Your task to perform on an android device: turn off notifications settings in the gmail app Image 0: 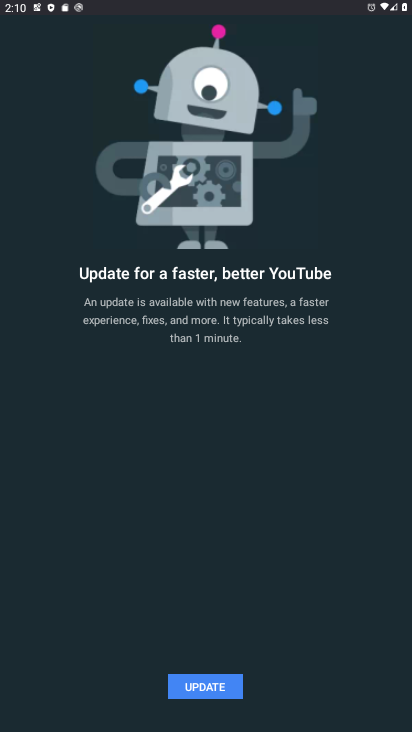
Step 0: press home button
Your task to perform on an android device: turn off notifications settings in the gmail app Image 1: 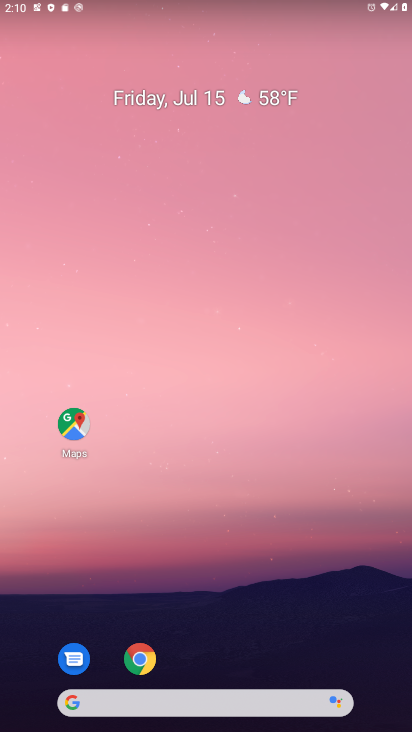
Step 1: drag from (219, 727) to (223, 229)
Your task to perform on an android device: turn off notifications settings in the gmail app Image 2: 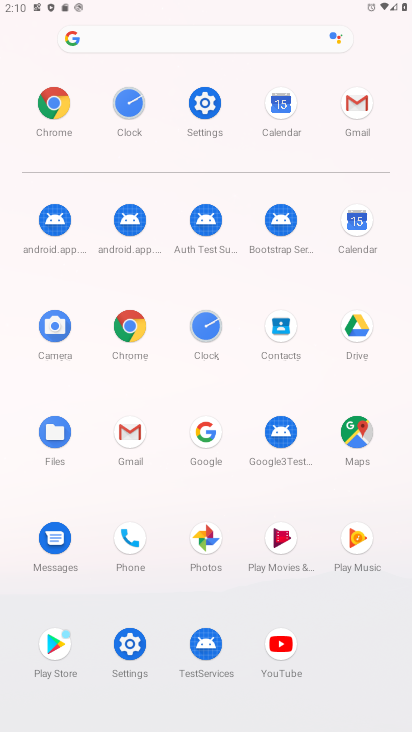
Step 2: click (121, 433)
Your task to perform on an android device: turn off notifications settings in the gmail app Image 3: 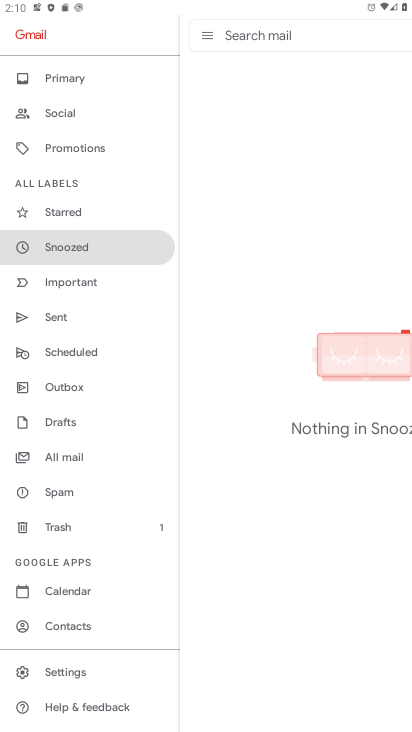
Step 3: click (48, 671)
Your task to perform on an android device: turn off notifications settings in the gmail app Image 4: 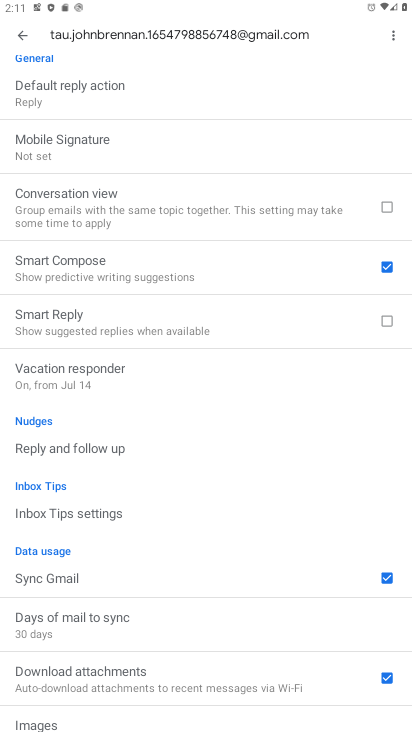
Step 4: drag from (112, 113) to (142, 589)
Your task to perform on an android device: turn off notifications settings in the gmail app Image 5: 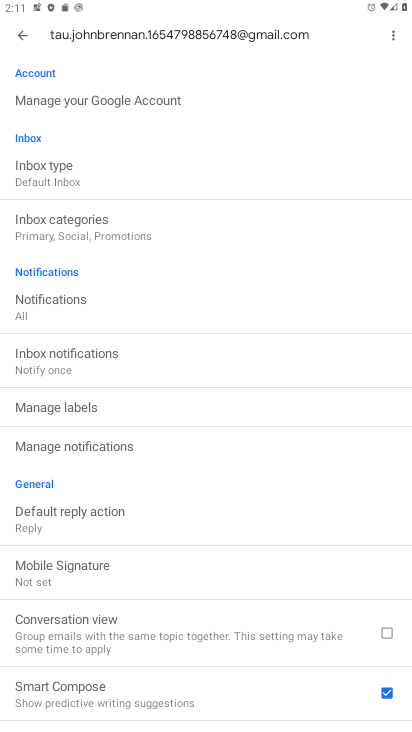
Step 5: click (46, 309)
Your task to perform on an android device: turn off notifications settings in the gmail app Image 6: 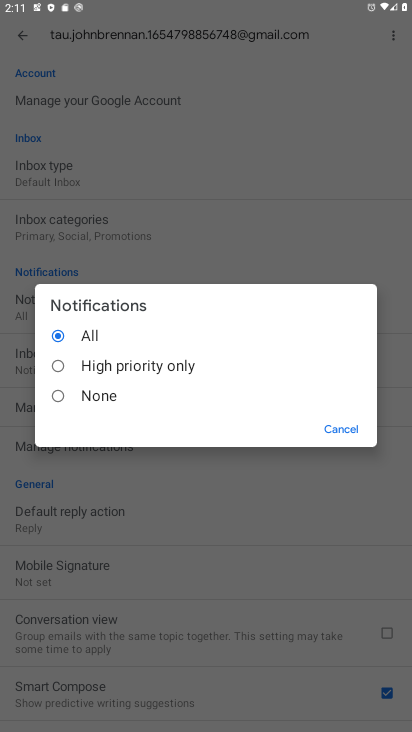
Step 6: click (54, 394)
Your task to perform on an android device: turn off notifications settings in the gmail app Image 7: 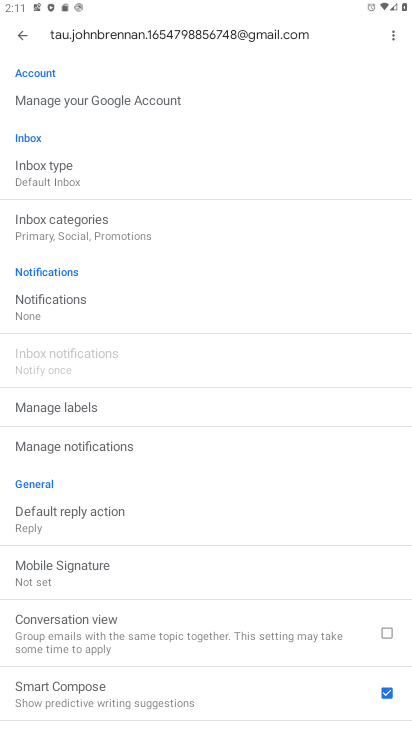
Step 7: task complete